Your task to perform on an android device: Search for Italian restaurants on Maps Image 0: 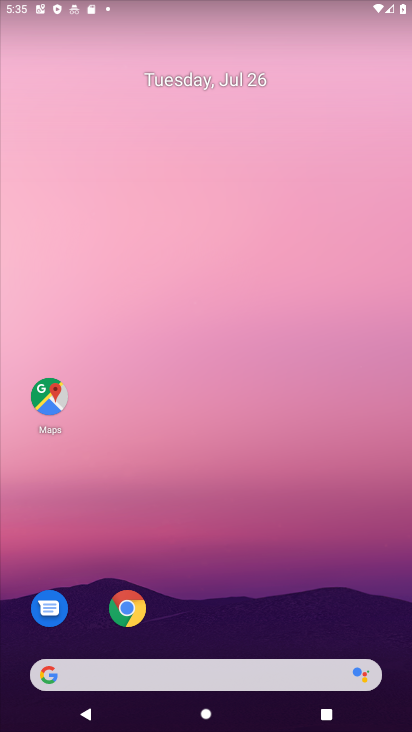
Step 0: press home button
Your task to perform on an android device: Search for Italian restaurants on Maps Image 1: 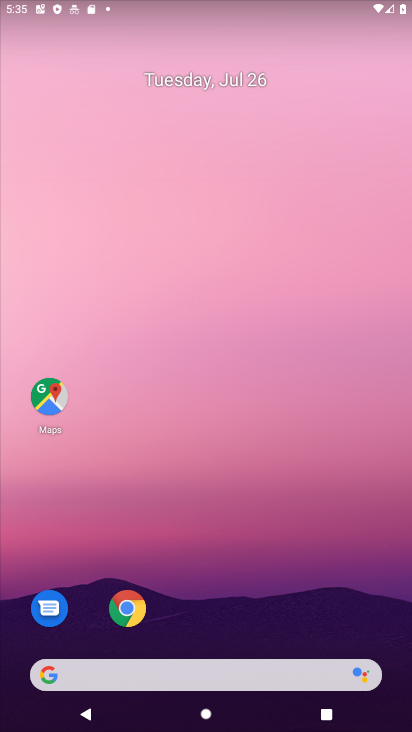
Step 1: drag from (223, 648) to (309, 0)
Your task to perform on an android device: Search for Italian restaurants on Maps Image 2: 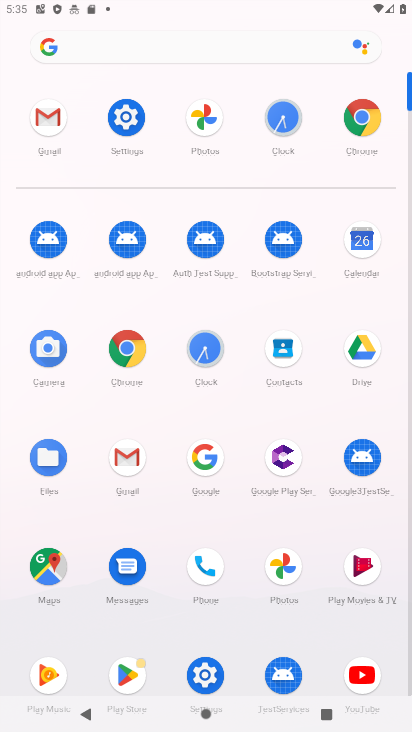
Step 2: click (39, 566)
Your task to perform on an android device: Search for Italian restaurants on Maps Image 3: 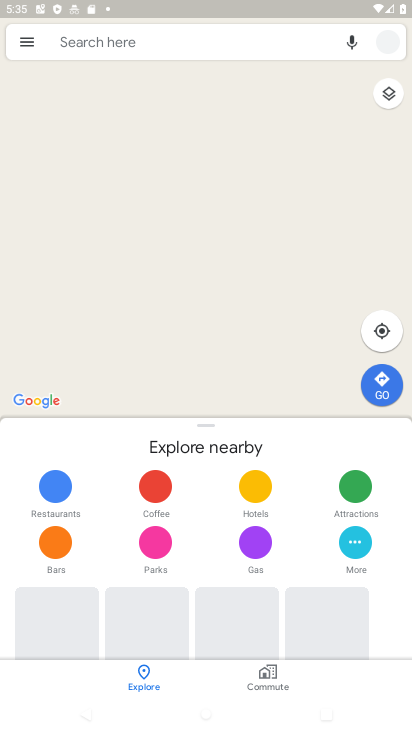
Step 3: click (155, 37)
Your task to perform on an android device: Search for Italian restaurants on Maps Image 4: 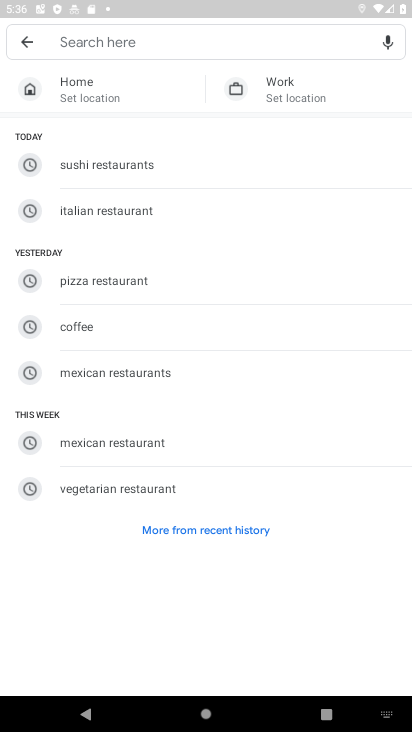
Step 4: type "Italian restaurants "
Your task to perform on an android device: Search for Italian restaurants on Maps Image 5: 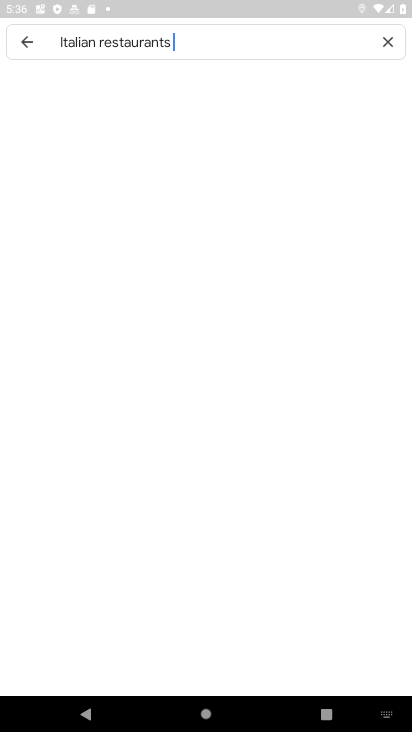
Step 5: press enter
Your task to perform on an android device: Search for Italian restaurants on Maps Image 6: 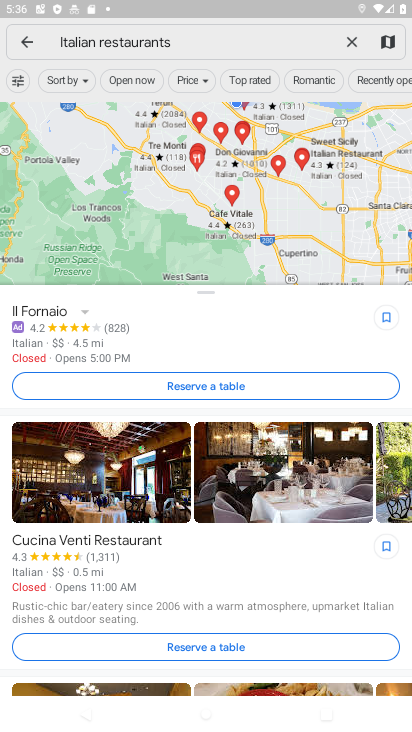
Step 6: task complete